Your task to perform on an android device: Open wifi settings Image 0: 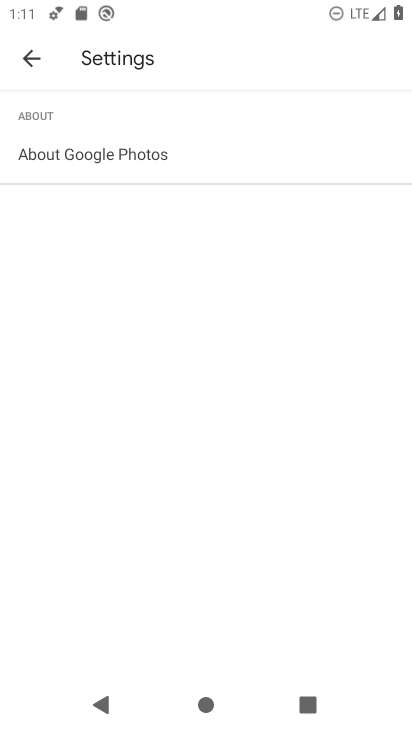
Step 0: press back button
Your task to perform on an android device: Open wifi settings Image 1: 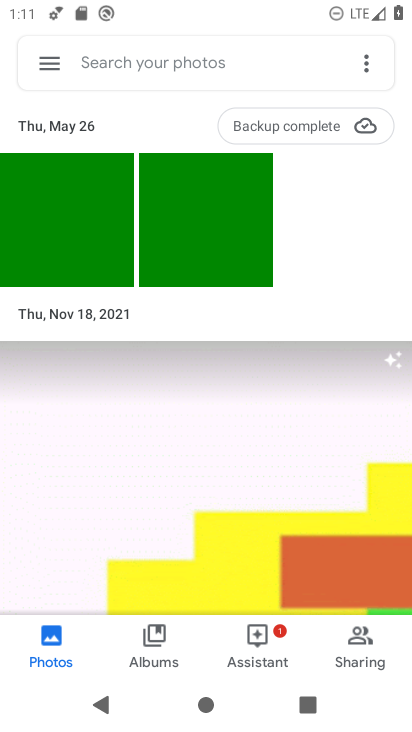
Step 1: press back button
Your task to perform on an android device: Open wifi settings Image 2: 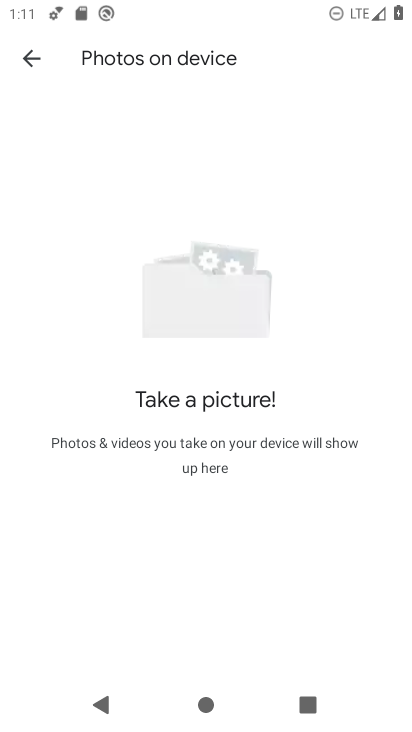
Step 2: press back button
Your task to perform on an android device: Open wifi settings Image 3: 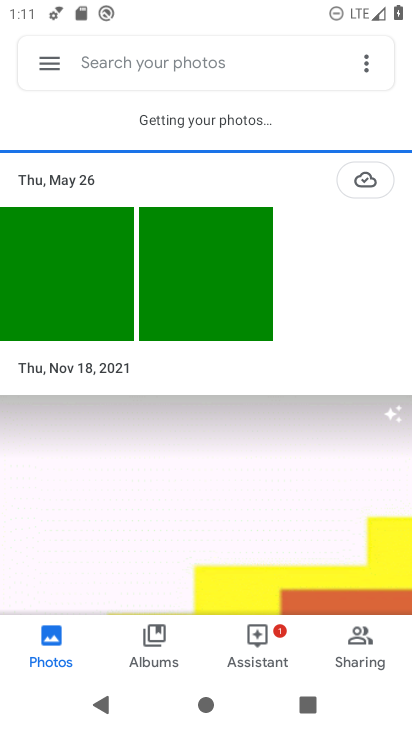
Step 3: press back button
Your task to perform on an android device: Open wifi settings Image 4: 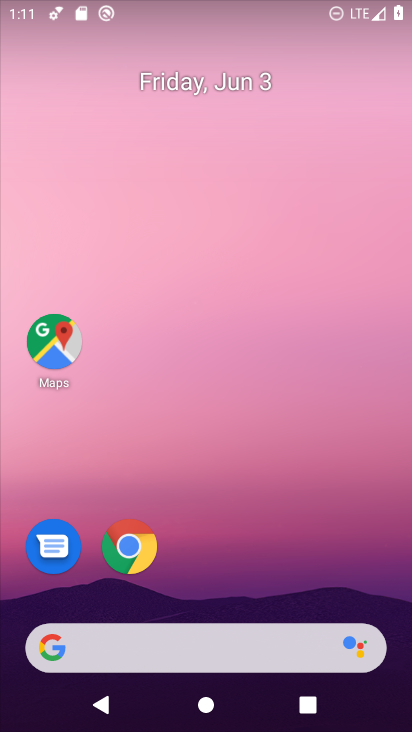
Step 4: drag from (241, 568) to (184, 97)
Your task to perform on an android device: Open wifi settings Image 5: 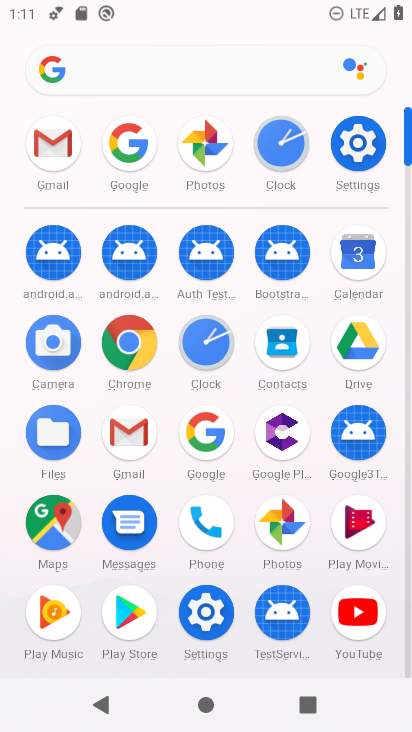
Step 5: click (356, 144)
Your task to perform on an android device: Open wifi settings Image 6: 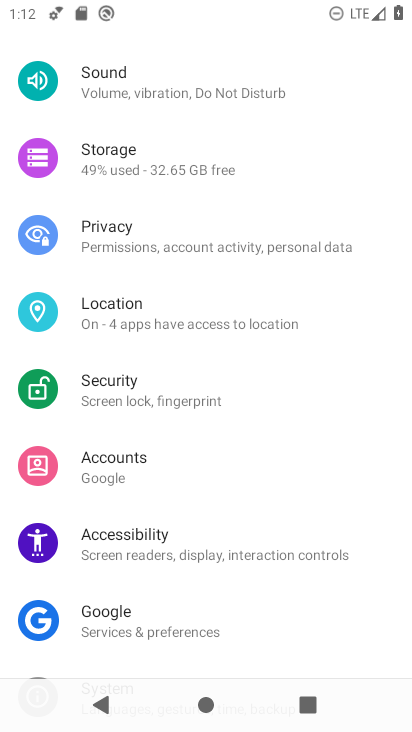
Step 6: drag from (138, 112) to (142, 194)
Your task to perform on an android device: Open wifi settings Image 7: 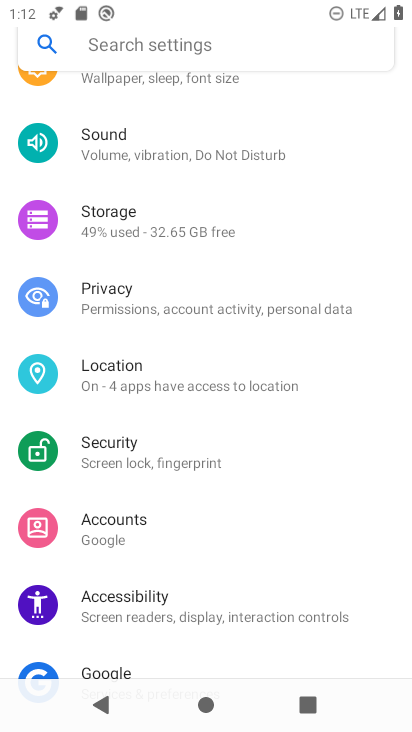
Step 7: drag from (167, 121) to (158, 221)
Your task to perform on an android device: Open wifi settings Image 8: 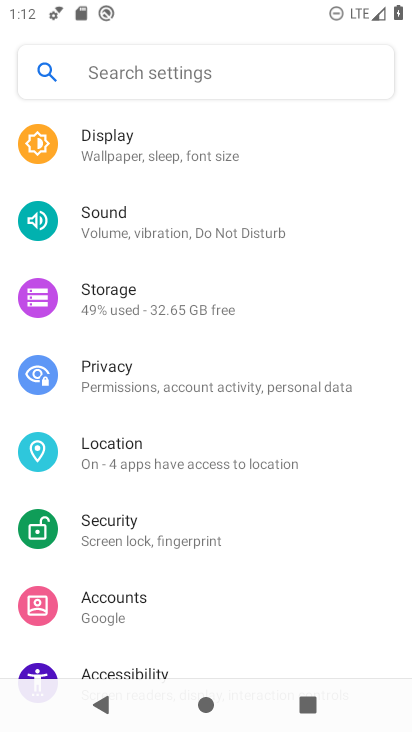
Step 8: drag from (150, 184) to (186, 312)
Your task to perform on an android device: Open wifi settings Image 9: 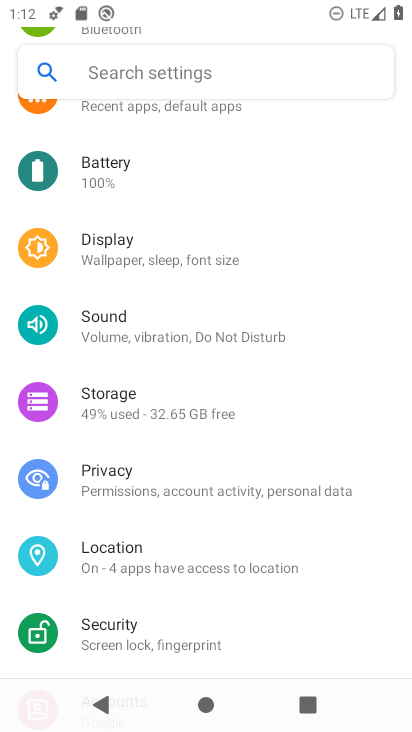
Step 9: drag from (169, 206) to (173, 346)
Your task to perform on an android device: Open wifi settings Image 10: 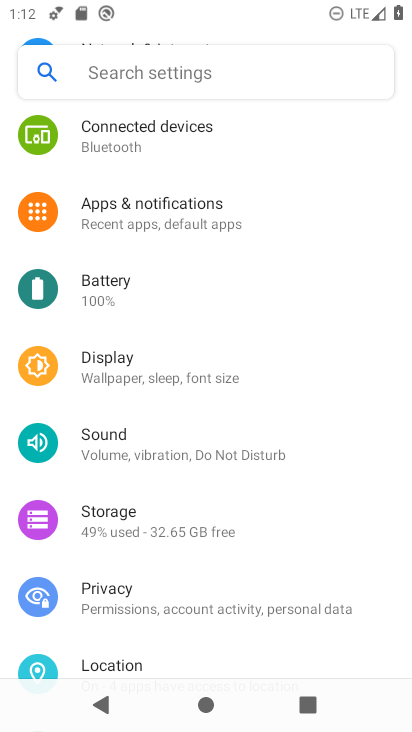
Step 10: drag from (166, 259) to (147, 370)
Your task to perform on an android device: Open wifi settings Image 11: 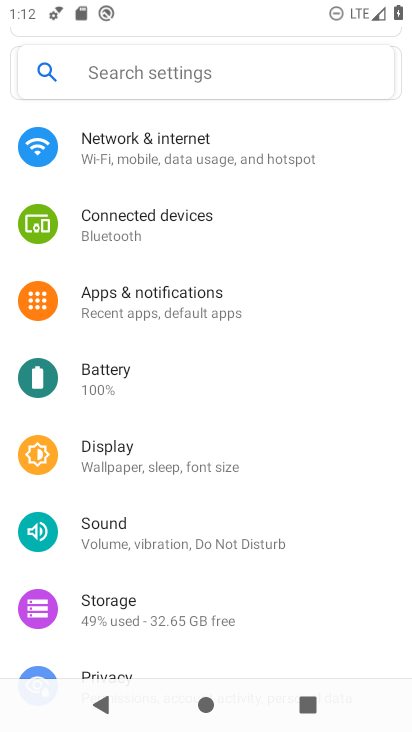
Step 11: drag from (186, 252) to (205, 345)
Your task to perform on an android device: Open wifi settings Image 12: 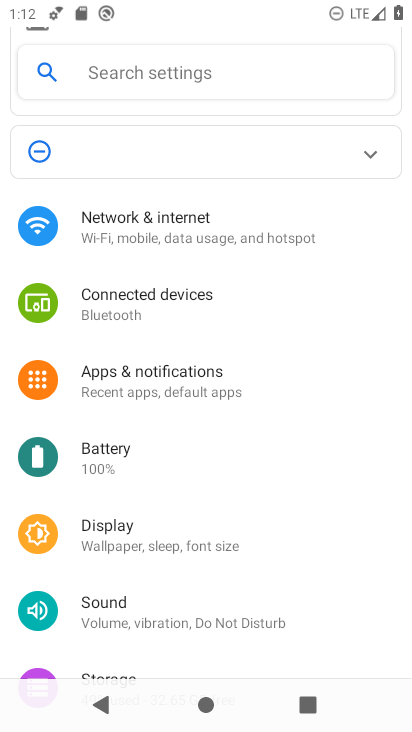
Step 12: click (218, 229)
Your task to perform on an android device: Open wifi settings Image 13: 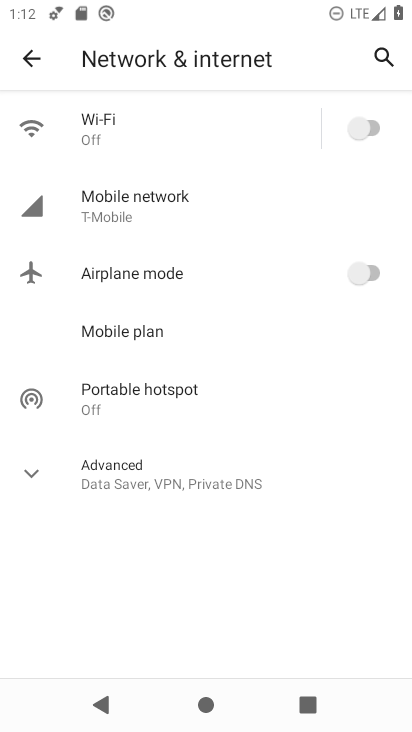
Step 13: click (113, 132)
Your task to perform on an android device: Open wifi settings Image 14: 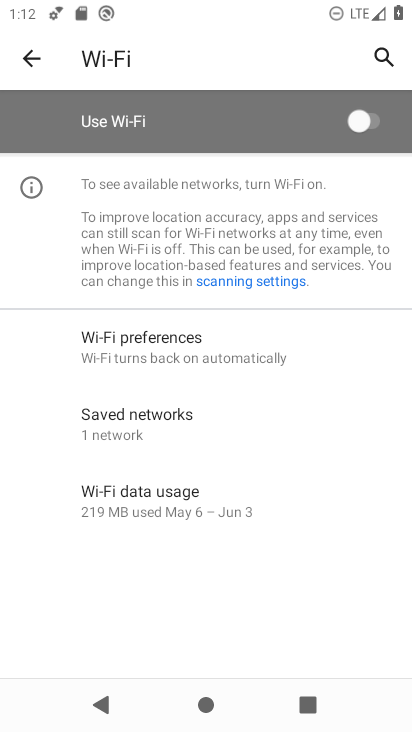
Step 14: task complete